Your task to perform on an android device: manage bookmarks in the chrome app Image 0: 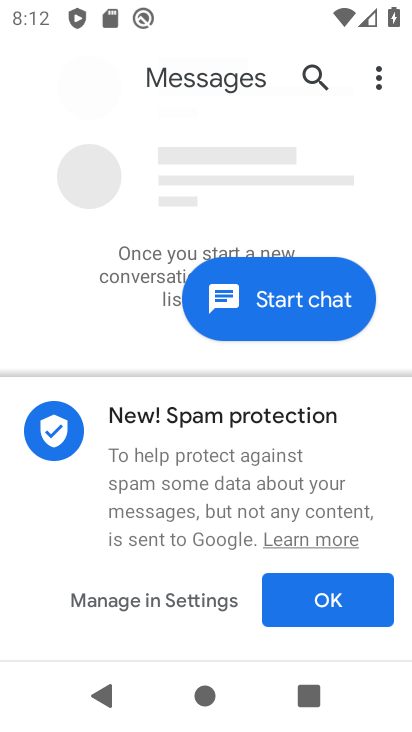
Step 0: press home button
Your task to perform on an android device: manage bookmarks in the chrome app Image 1: 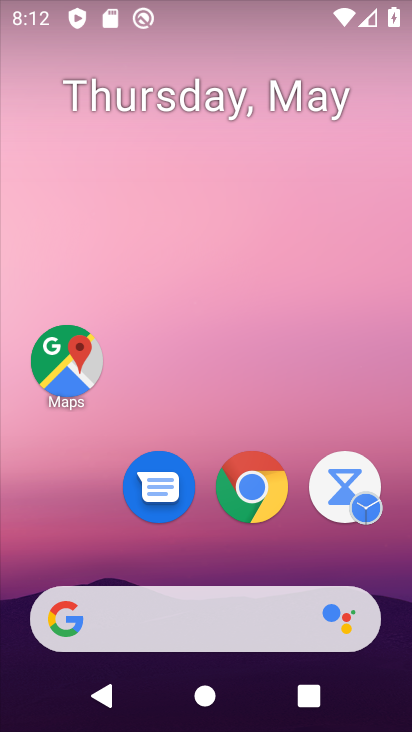
Step 1: drag from (371, 556) to (378, 170)
Your task to perform on an android device: manage bookmarks in the chrome app Image 2: 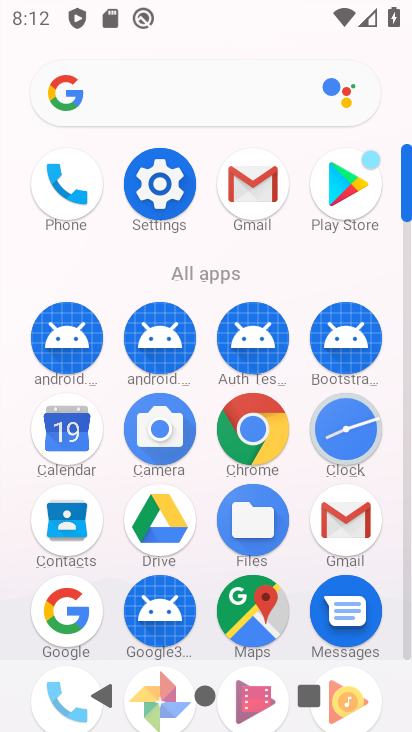
Step 2: click (262, 449)
Your task to perform on an android device: manage bookmarks in the chrome app Image 3: 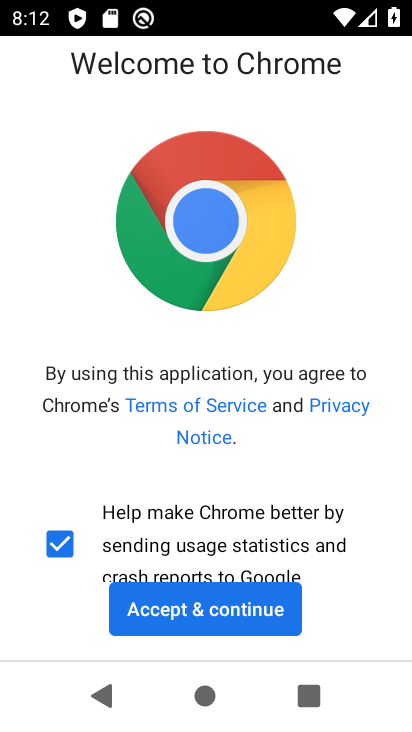
Step 3: click (189, 617)
Your task to perform on an android device: manage bookmarks in the chrome app Image 4: 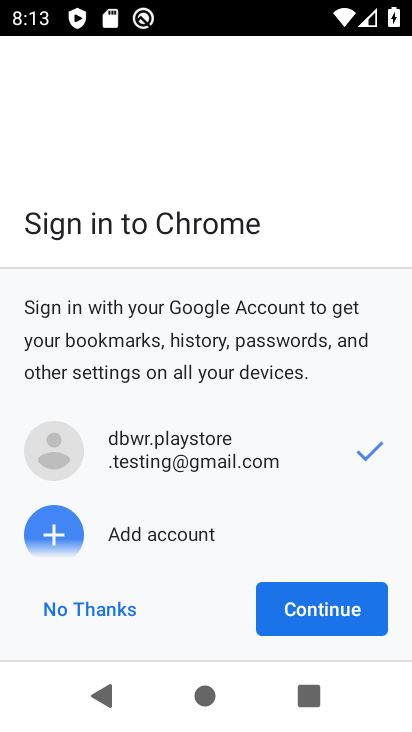
Step 4: click (301, 602)
Your task to perform on an android device: manage bookmarks in the chrome app Image 5: 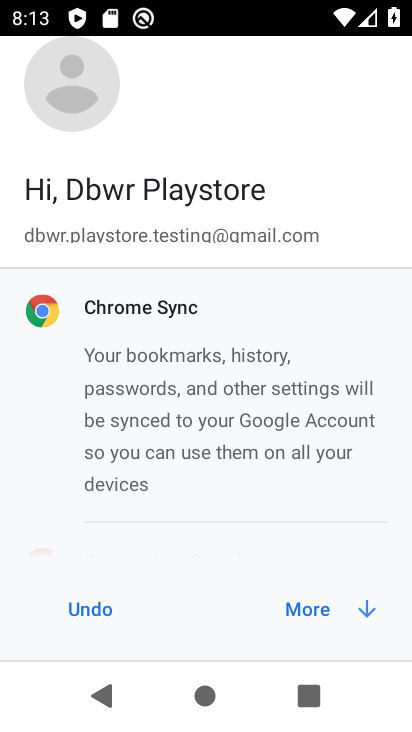
Step 5: click (301, 602)
Your task to perform on an android device: manage bookmarks in the chrome app Image 6: 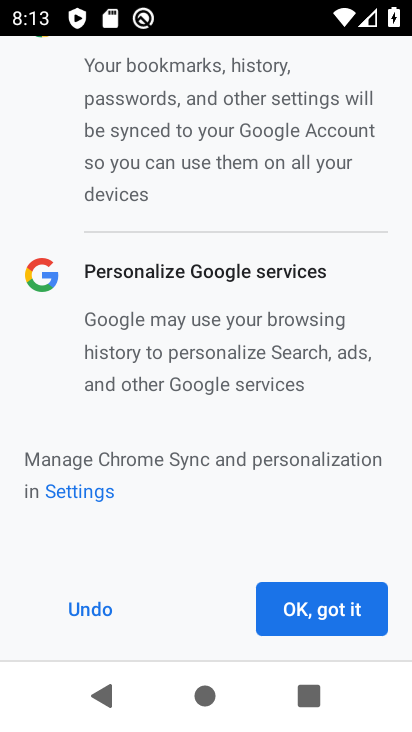
Step 6: click (301, 602)
Your task to perform on an android device: manage bookmarks in the chrome app Image 7: 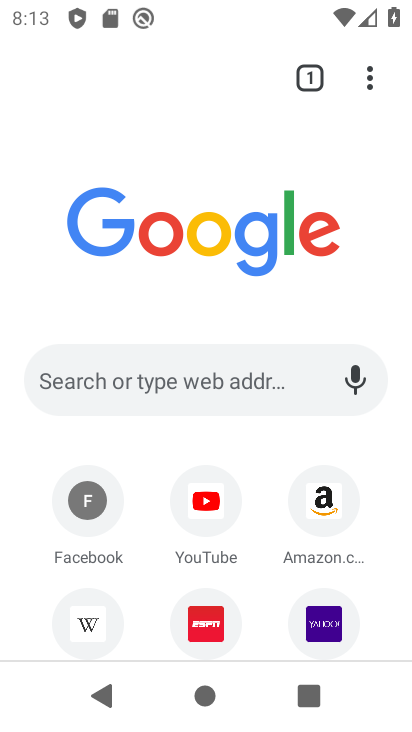
Step 7: click (371, 82)
Your task to perform on an android device: manage bookmarks in the chrome app Image 8: 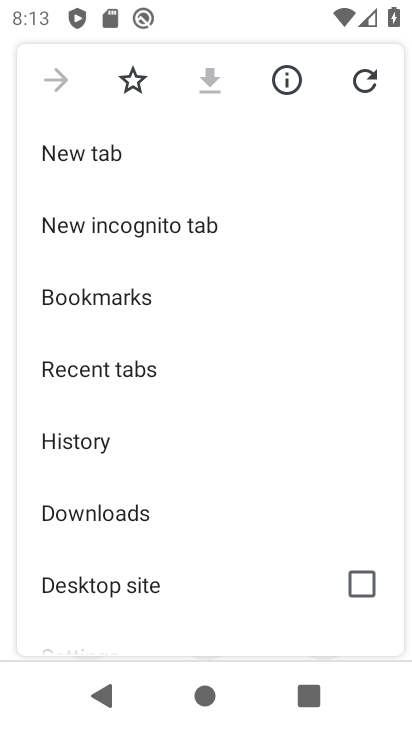
Step 8: click (186, 303)
Your task to perform on an android device: manage bookmarks in the chrome app Image 9: 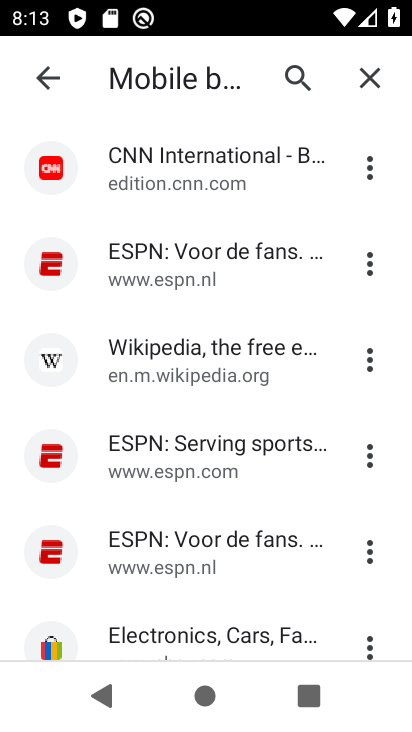
Step 9: click (369, 170)
Your task to perform on an android device: manage bookmarks in the chrome app Image 10: 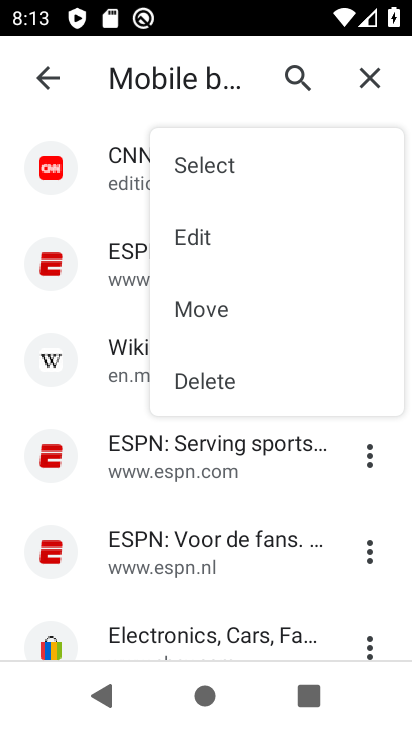
Step 10: click (236, 240)
Your task to perform on an android device: manage bookmarks in the chrome app Image 11: 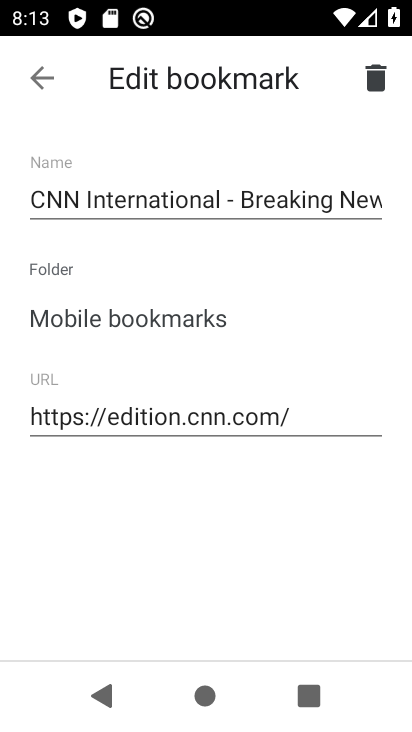
Step 11: click (216, 210)
Your task to perform on an android device: manage bookmarks in the chrome app Image 12: 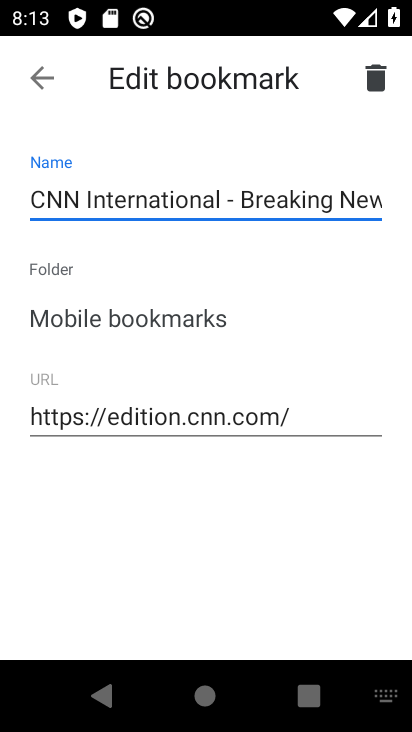
Step 12: type "aa"
Your task to perform on an android device: manage bookmarks in the chrome app Image 13: 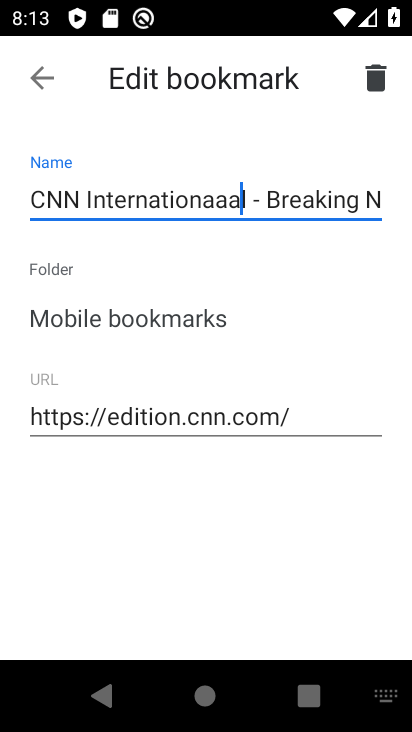
Step 13: click (50, 77)
Your task to perform on an android device: manage bookmarks in the chrome app Image 14: 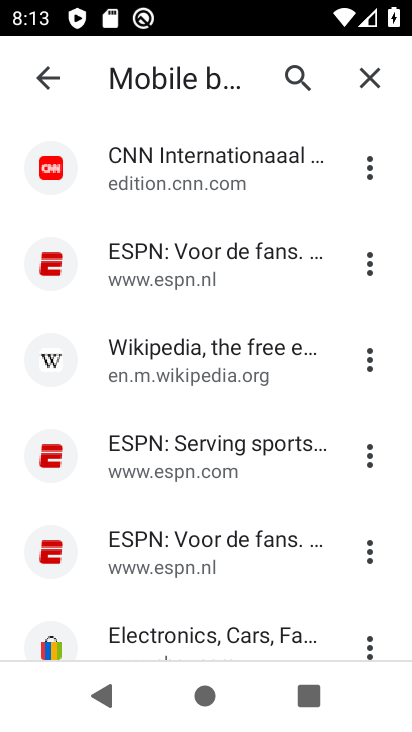
Step 14: task complete